Your task to perform on an android device: turn notification dots on Image 0: 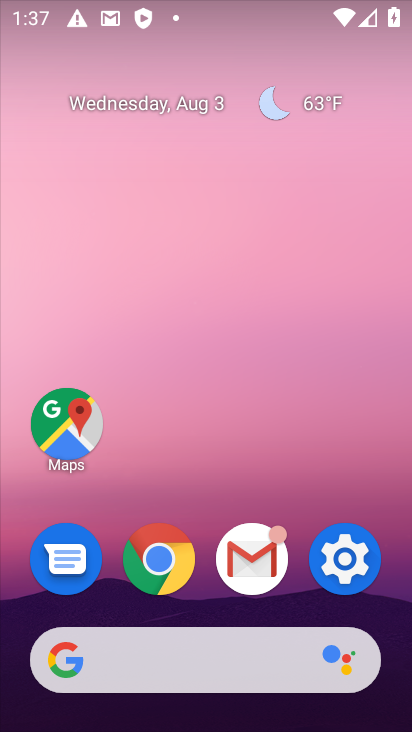
Step 0: press home button
Your task to perform on an android device: turn notification dots on Image 1: 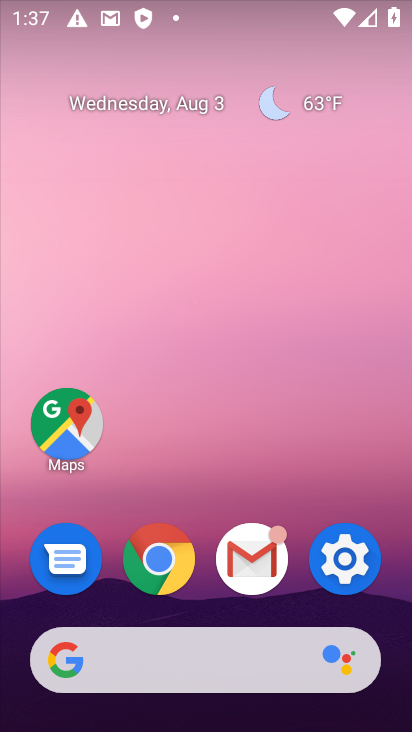
Step 1: click (369, 545)
Your task to perform on an android device: turn notification dots on Image 2: 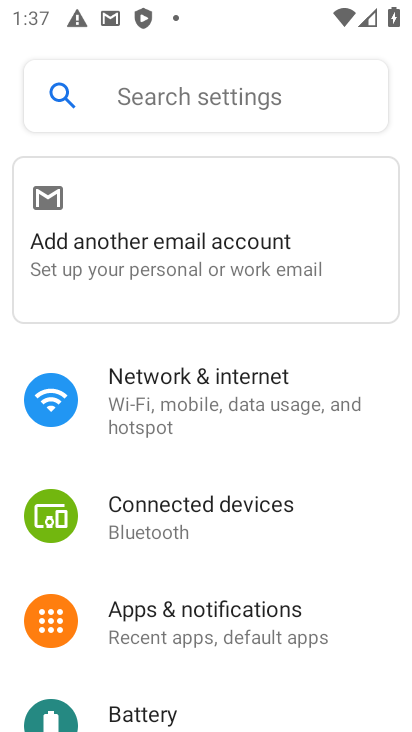
Step 2: click (124, 94)
Your task to perform on an android device: turn notification dots on Image 3: 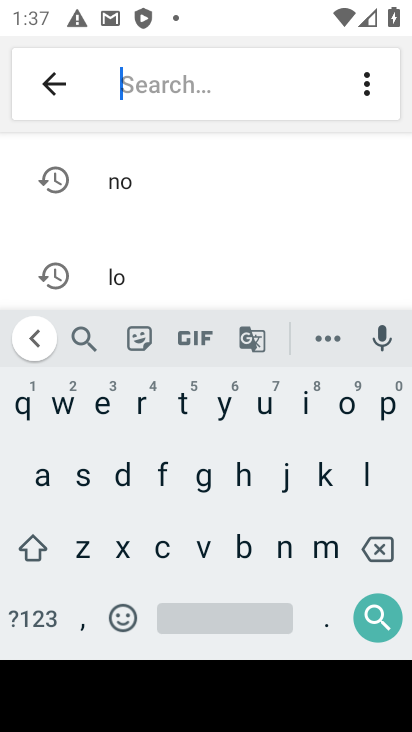
Step 3: click (282, 561)
Your task to perform on an android device: turn notification dots on Image 4: 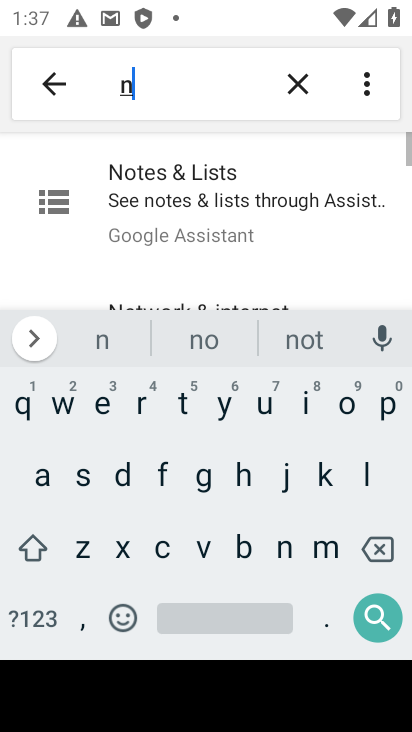
Step 4: click (340, 402)
Your task to perform on an android device: turn notification dots on Image 5: 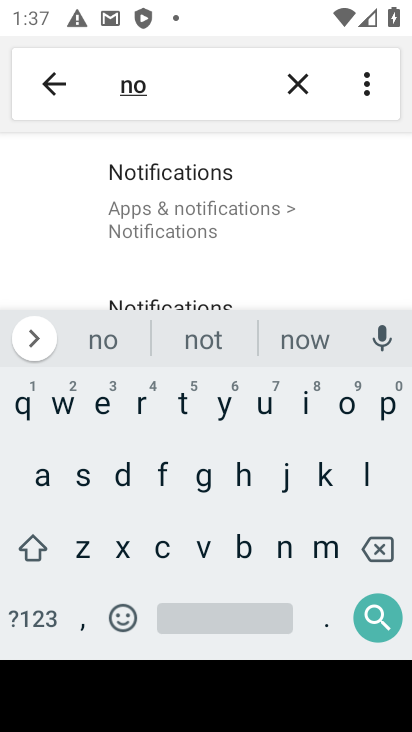
Step 5: click (220, 196)
Your task to perform on an android device: turn notification dots on Image 6: 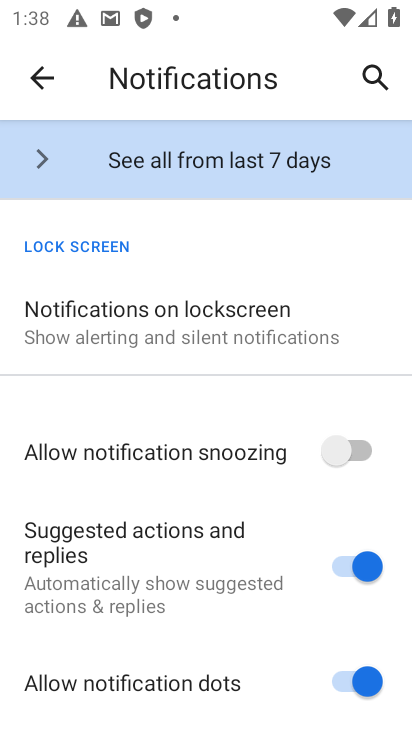
Step 6: click (297, 699)
Your task to perform on an android device: turn notification dots on Image 7: 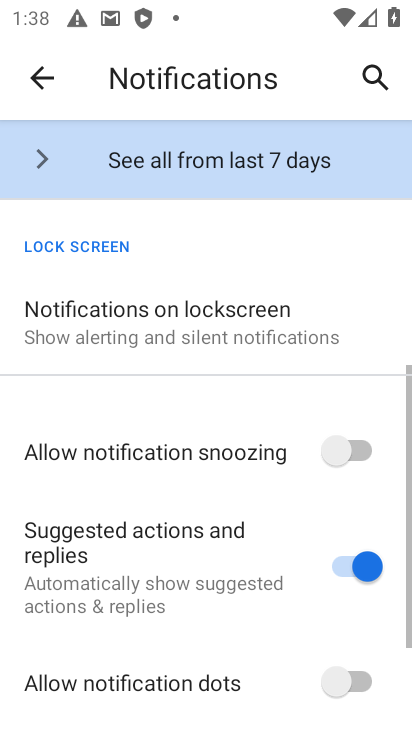
Step 7: click (297, 699)
Your task to perform on an android device: turn notification dots on Image 8: 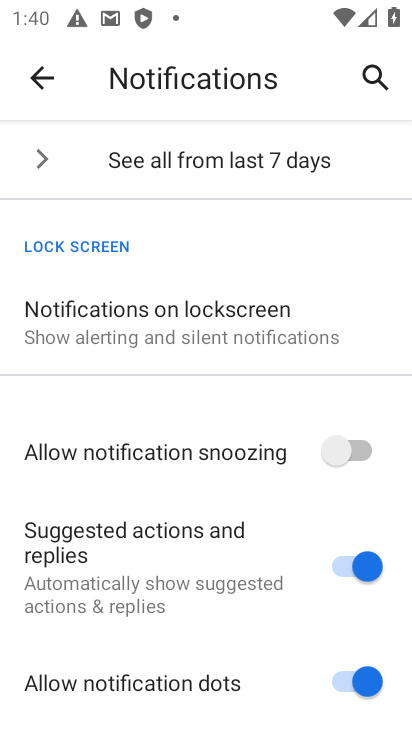
Step 8: task complete